Your task to perform on an android device: Add "panasonic triple a" to the cart on costco.com, then select checkout. Image 0: 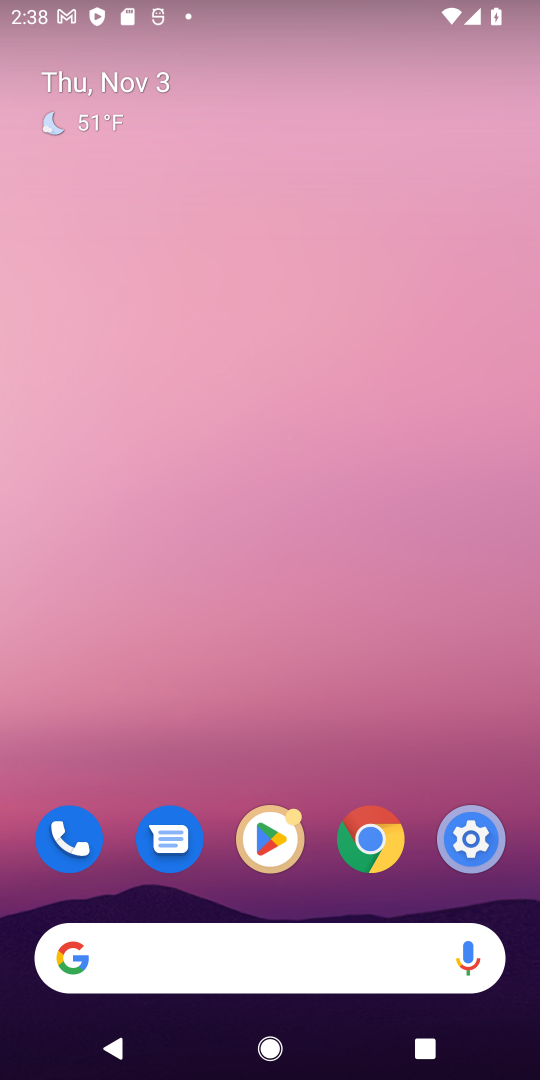
Step 0: click (302, 965)
Your task to perform on an android device: Add "panasonic triple a" to the cart on costco.com, then select checkout. Image 1: 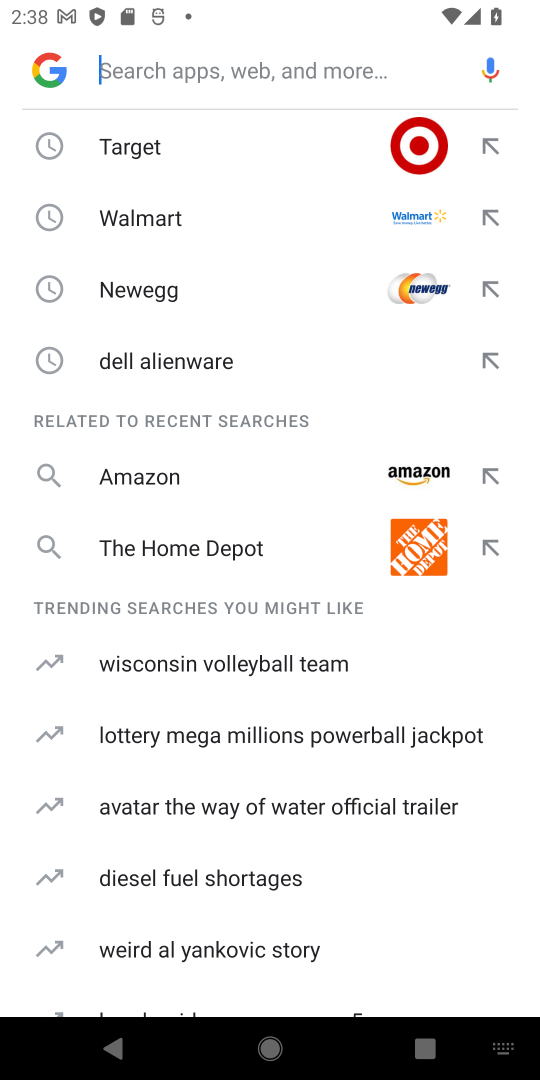
Step 1: type "costco"
Your task to perform on an android device: Add "panasonic triple a" to the cart on costco.com, then select checkout. Image 2: 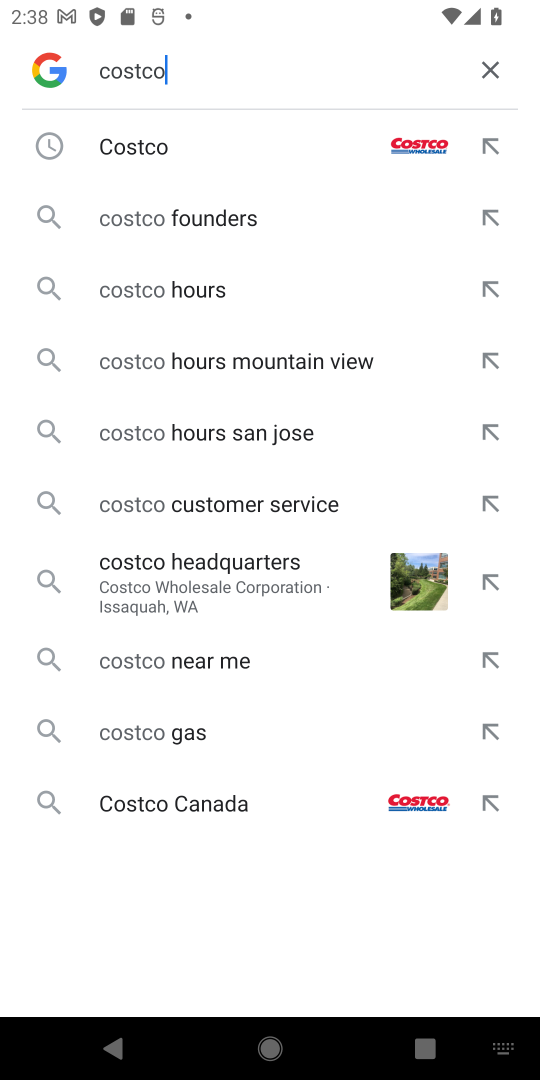
Step 2: click (297, 150)
Your task to perform on an android device: Add "panasonic triple a" to the cart on costco.com, then select checkout. Image 3: 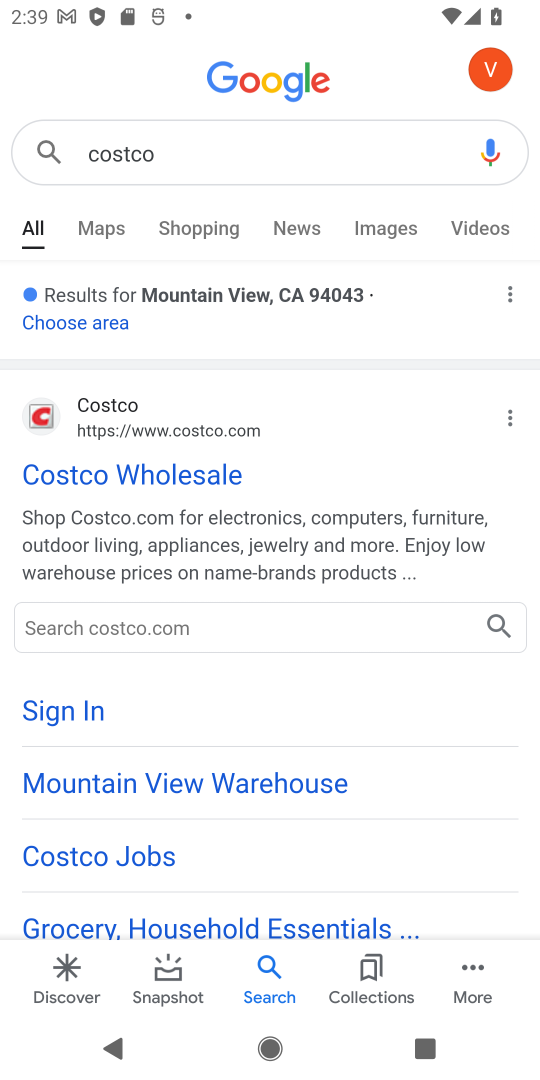
Step 3: click (185, 464)
Your task to perform on an android device: Add "panasonic triple a" to the cart on costco.com, then select checkout. Image 4: 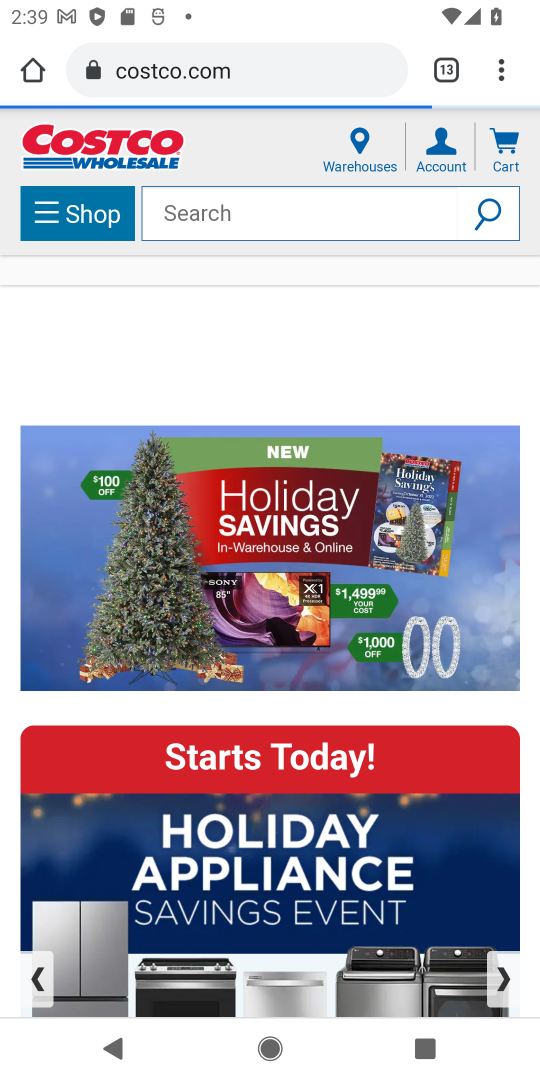
Step 4: click (271, 210)
Your task to perform on an android device: Add "panasonic triple a" to the cart on costco.com, then select checkout. Image 5: 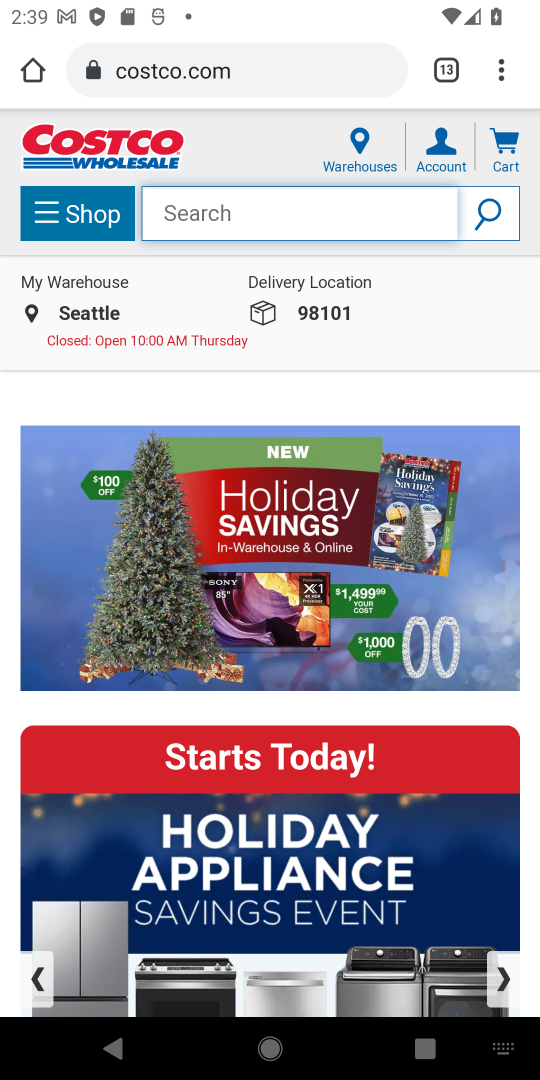
Step 5: type "panasonic triple A"
Your task to perform on an android device: Add "panasonic triple a" to the cart on costco.com, then select checkout. Image 6: 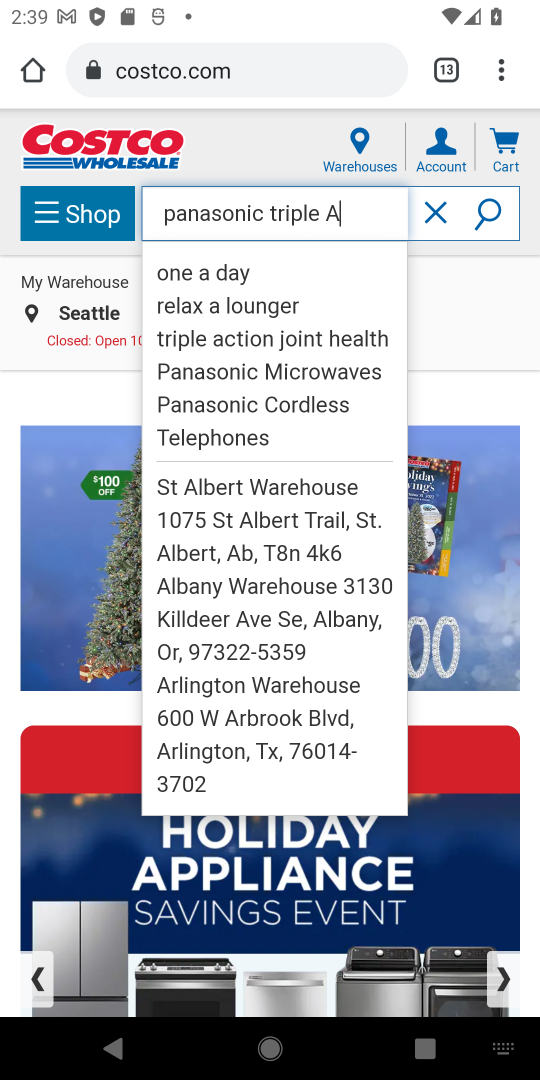
Step 6: click (482, 224)
Your task to perform on an android device: Add "panasonic triple a" to the cart on costco.com, then select checkout. Image 7: 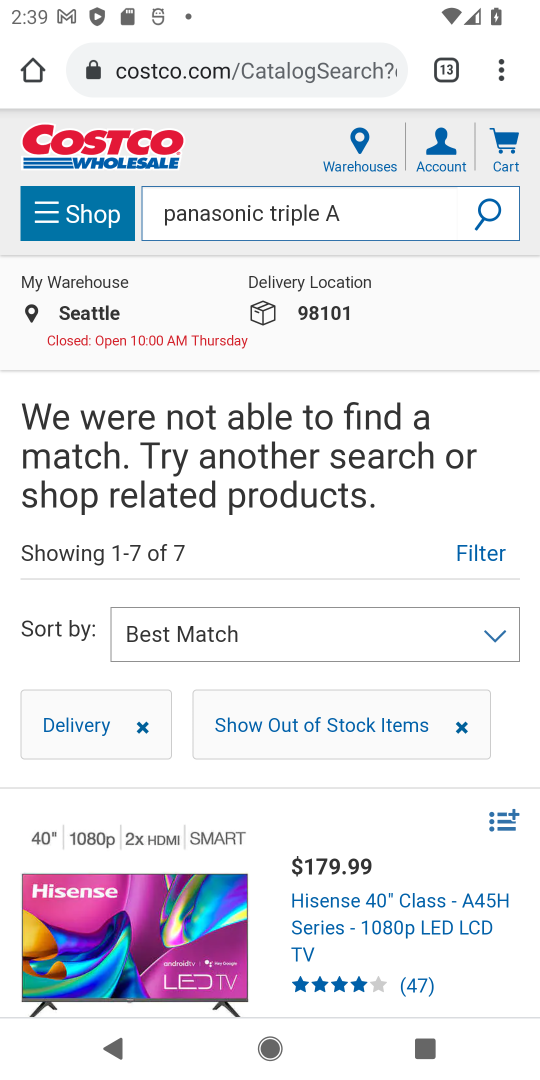
Step 7: task complete